Your task to perform on an android device: empty trash in google photos Image 0: 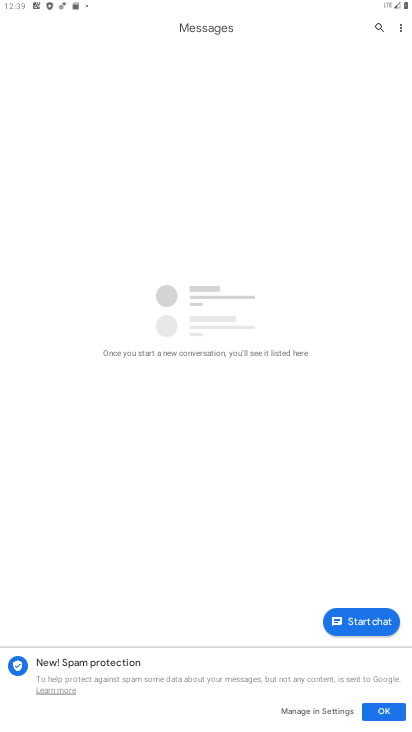
Step 0: press home button
Your task to perform on an android device: empty trash in google photos Image 1: 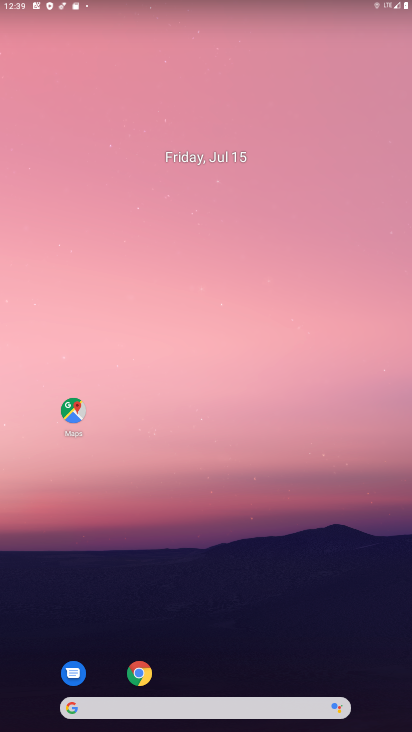
Step 1: drag from (386, 704) to (275, 202)
Your task to perform on an android device: empty trash in google photos Image 2: 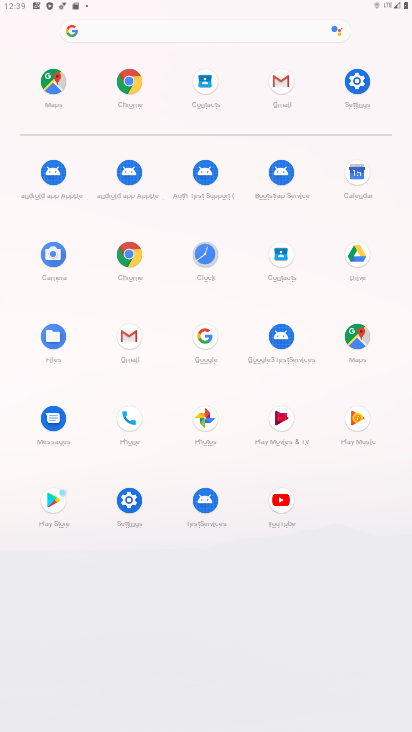
Step 2: click (206, 411)
Your task to perform on an android device: empty trash in google photos Image 3: 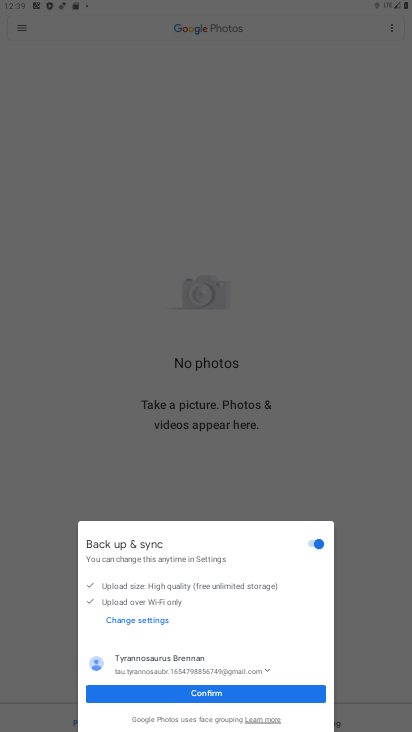
Step 3: click (212, 686)
Your task to perform on an android device: empty trash in google photos Image 4: 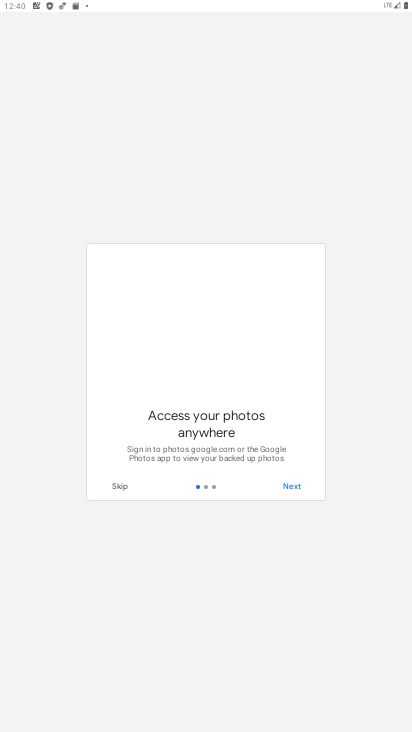
Step 4: click (284, 487)
Your task to perform on an android device: empty trash in google photos Image 5: 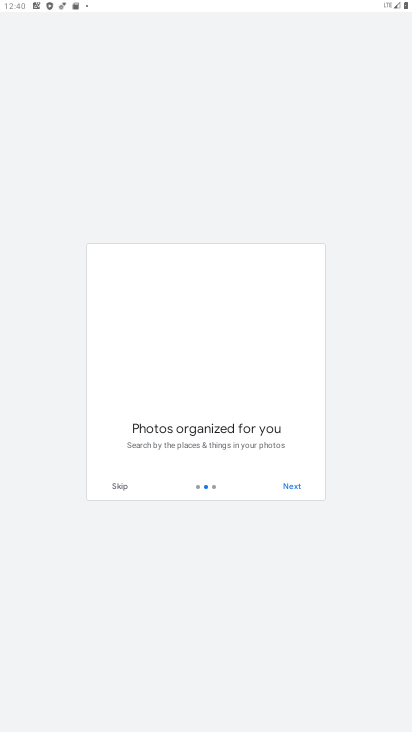
Step 5: click (284, 487)
Your task to perform on an android device: empty trash in google photos Image 6: 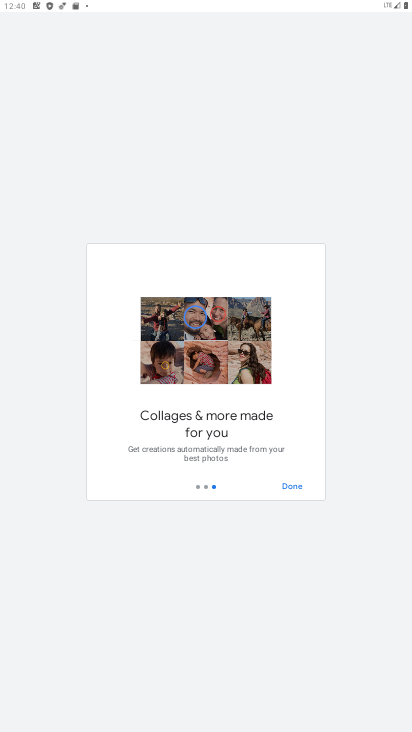
Step 6: click (284, 487)
Your task to perform on an android device: empty trash in google photos Image 7: 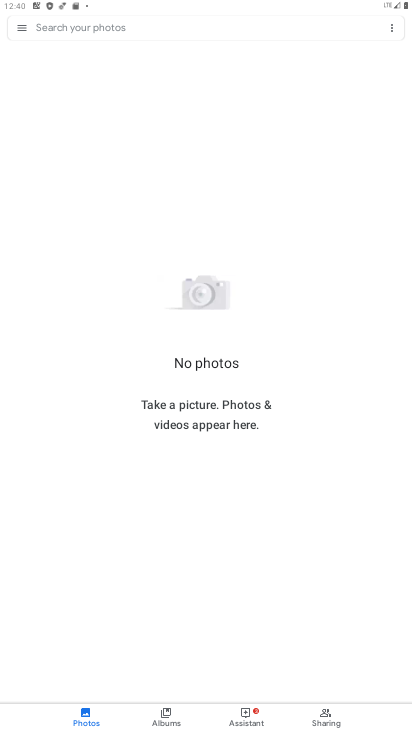
Step 7: click (27, 26)
Your task to perform on an android device: empty trash in google photos Image 8: 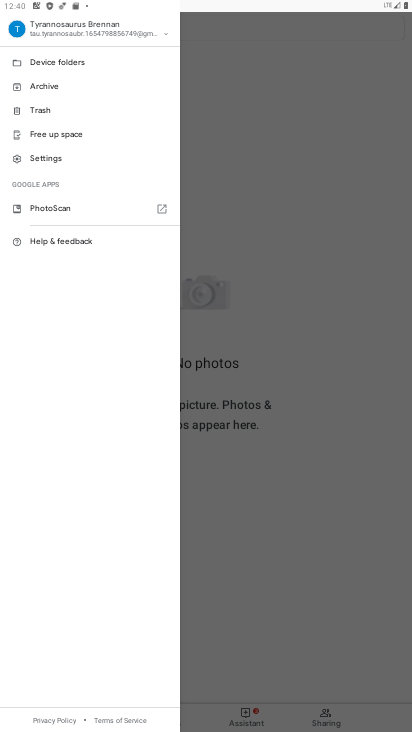
Step 8: click (36, 107)
Your task to perform on an android device: empty trash in google photos Image 9: 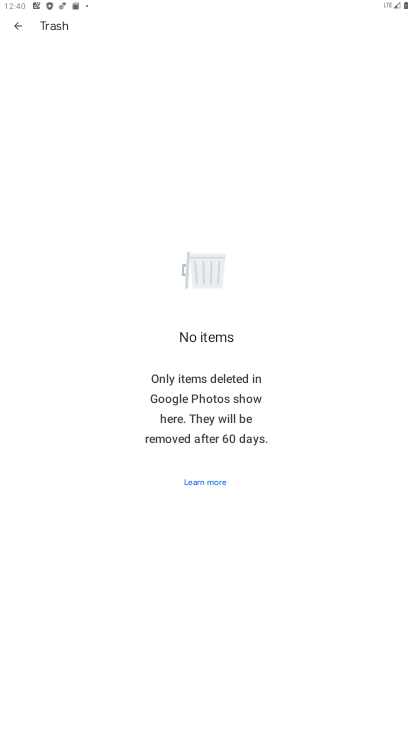
Step 9: task complete